Your task to perform on an android device: check google app version Image 0: 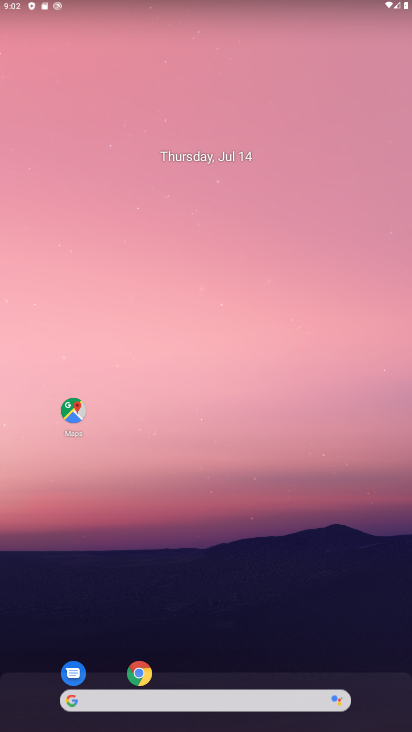
Step 0: drag from (345, 652) to (243, 151)
Your task to perform on an android device: check google app version Image 1: 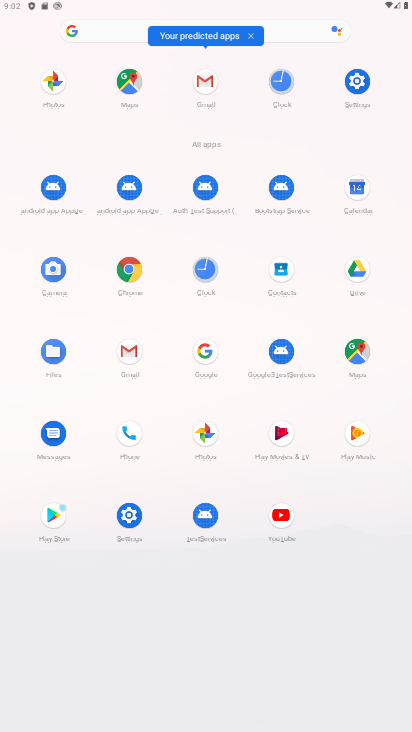
Step 1: click (122, 276)
Your task to perform on an android device: check google app version Image 2: 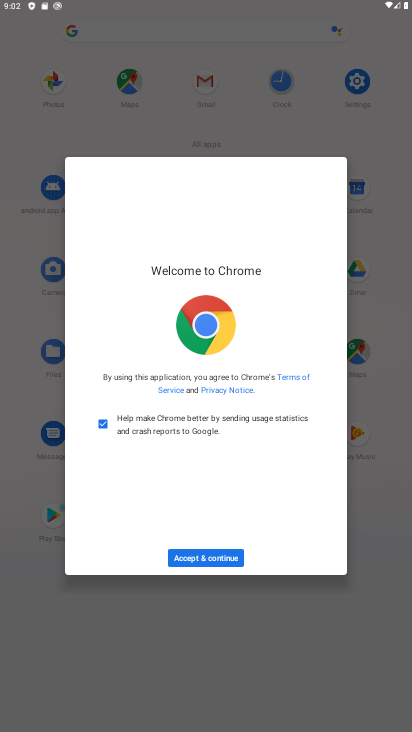
Step 2: click (216, 557)
Your task to perform on an android device: check google app version Image 3: 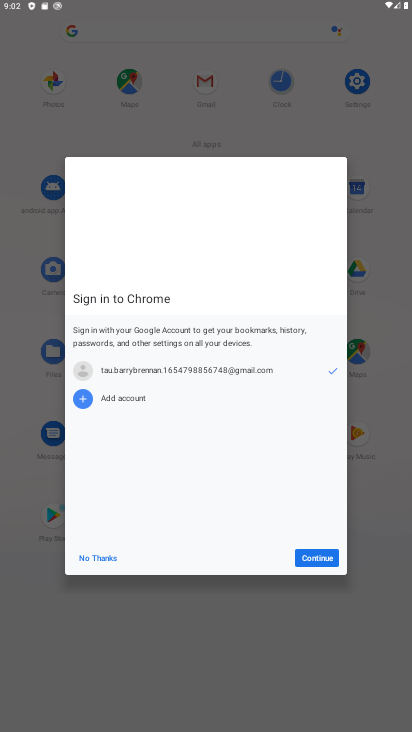
Step 3: click (313, 562)
Your task to perform on an android device: check google app version Image 4: 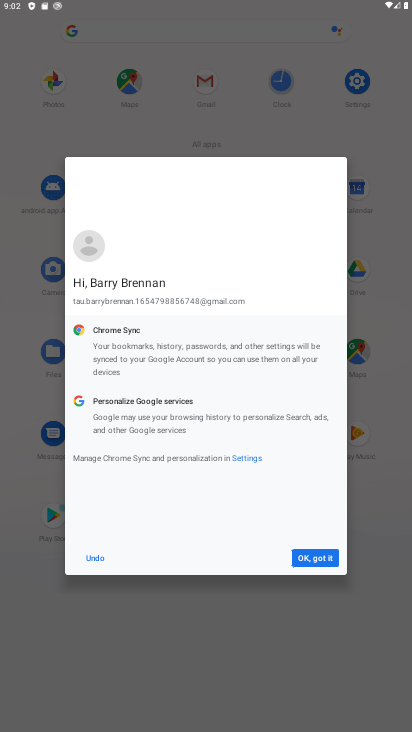
Step 4: click (313, 562)
Your task to perform on an android device: check google app version Image 5: 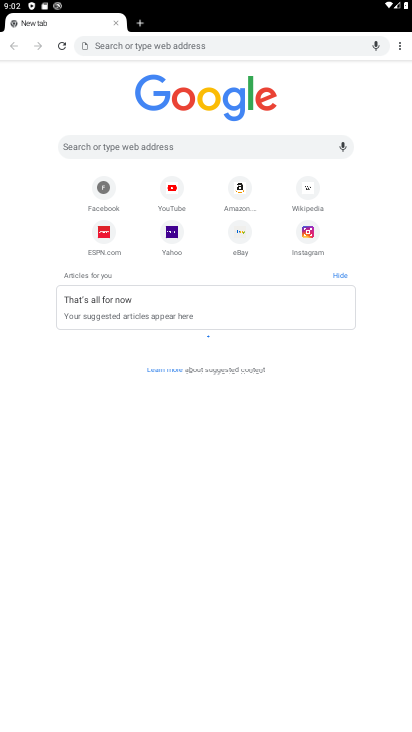
Step 5: click (402, 46)
Your task to perform on an android device: check google app version Image 6: 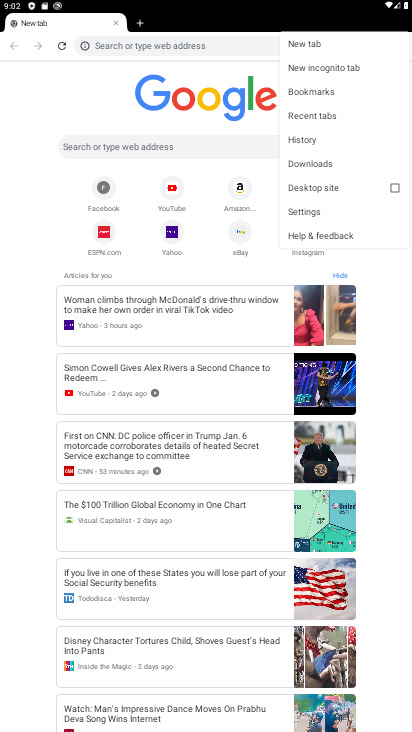
Step 6: click (321, 235)
Your task to perform on an android device: check google app version Image 7: 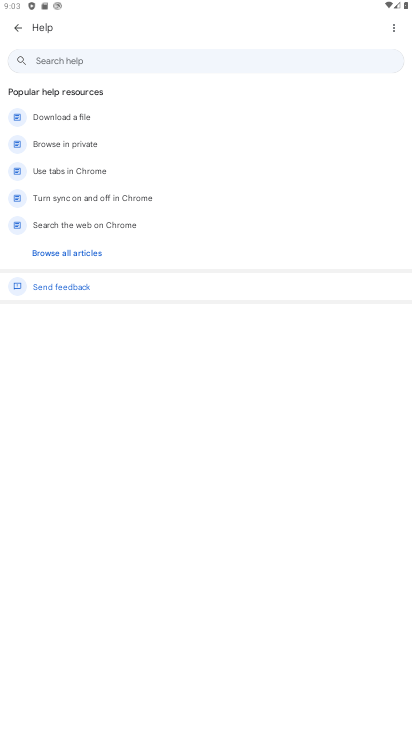
Step 7: click (392, 33)
Your task to perform on an android device: check google app version Image 8: 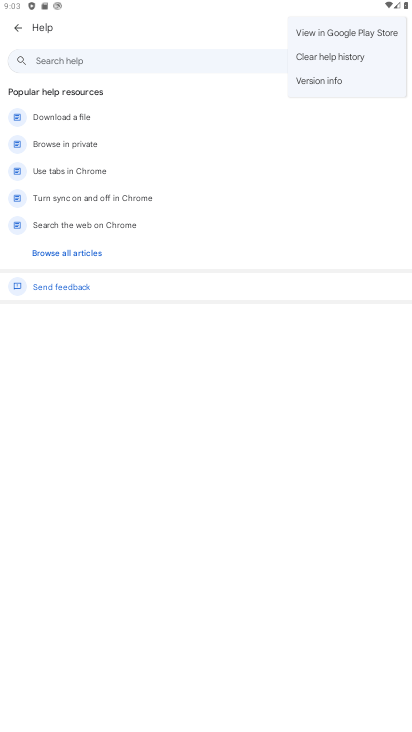
Step 8: click (345, 88)
Your task to perform on an android device: check google app version Image 9: 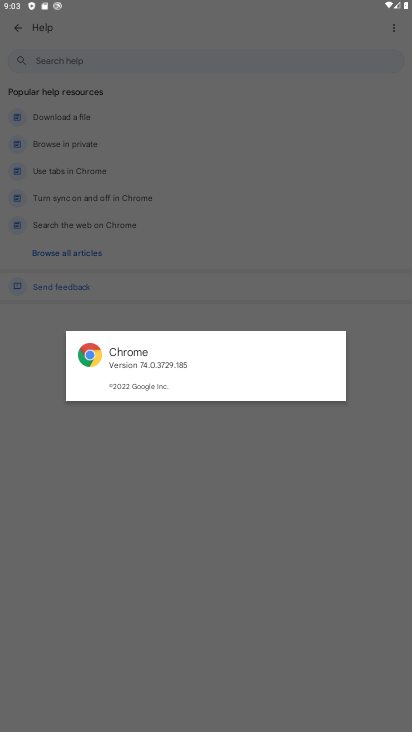
Step 9: task complete